Your task to perform on an android device: turn off location history Image 0: 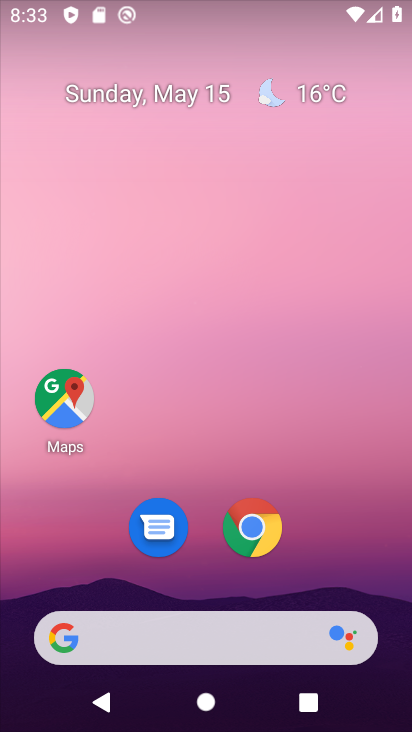
Step 0: click (61, 399)
Your task to perform on an android device: turn off location history Image 1: 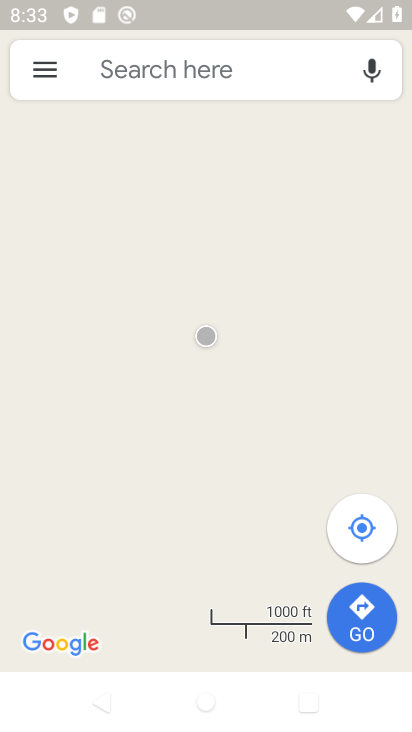
Step 1: click (37, 77)
Your task to perform on an android device: turn off location history Image 2: 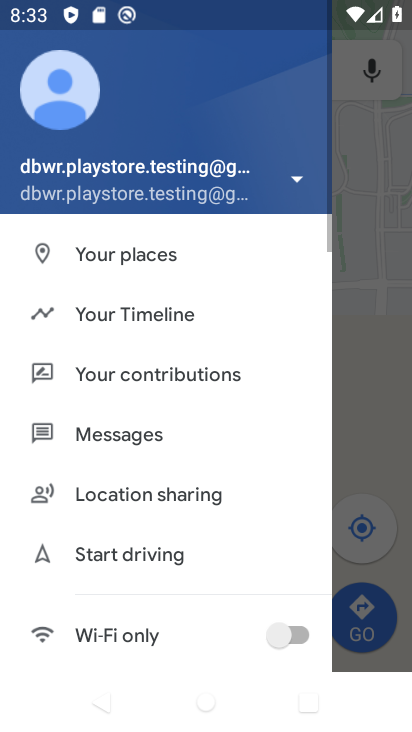
Step 2: drag from (199, 539) to (202, 601)
Your task to perform on an android device: turn off location history Image 3: 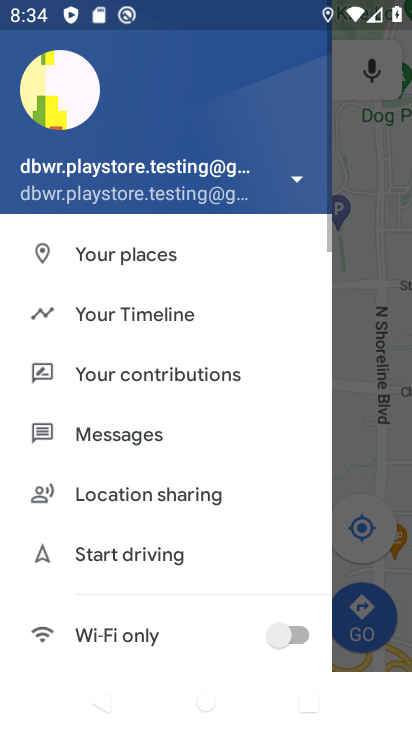
Step 3: click (129, 308)
Your task to perform on an android device: turn off location history Image 4: 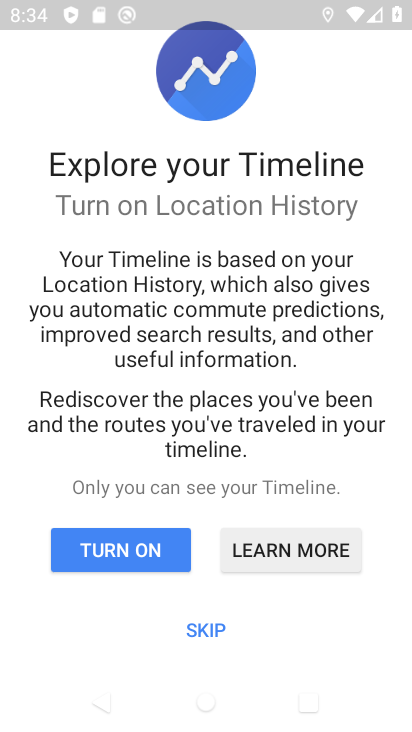
Step 4: click (204, 643)
Your task to perform on an android device: turn off location history Image 5: 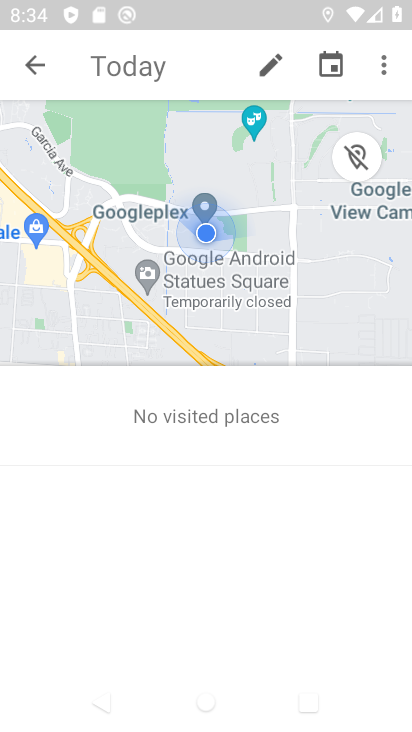
Step 5: click (388, 72)
Your task to perform on an android device: turn off location history Image 6: 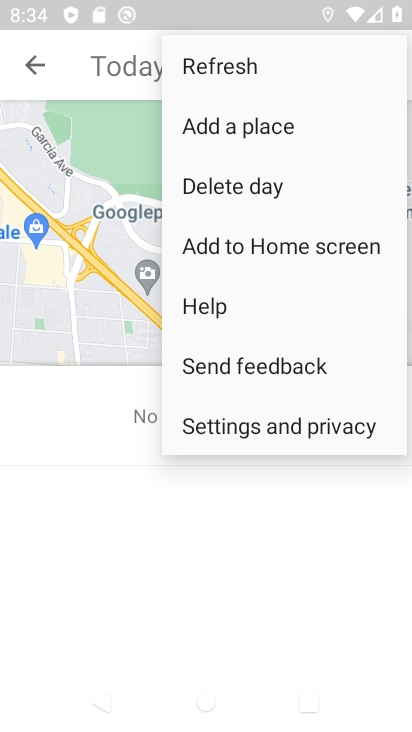
Step 6: click (270, 432)
Your task to perform on an android device: turn off location history Image 7: 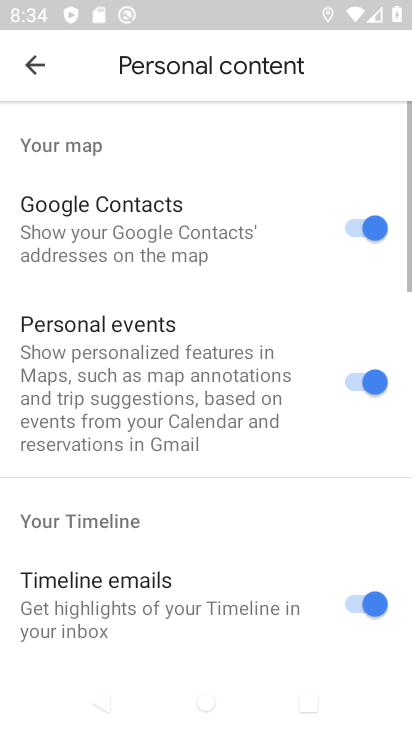
Step 7: drag from (184, 589) to (194, 47)
Your task to perform on an android device: turn off location history Image 8: 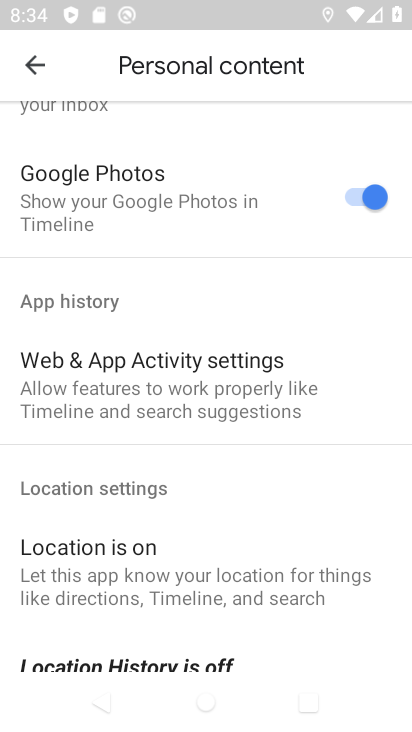
Step 8: drag from (133, 442) to (155, 99)
Your task to perform on an android device: turn off location history Image 9: 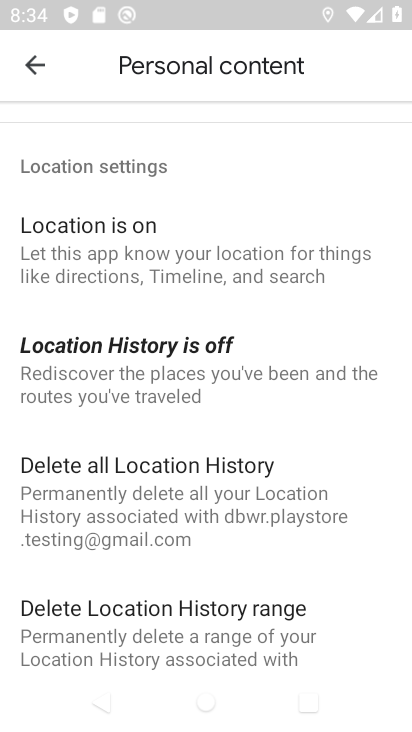
Step 9: click (101, 376)
Your task to perform on an android device: turn off location history Image 10: 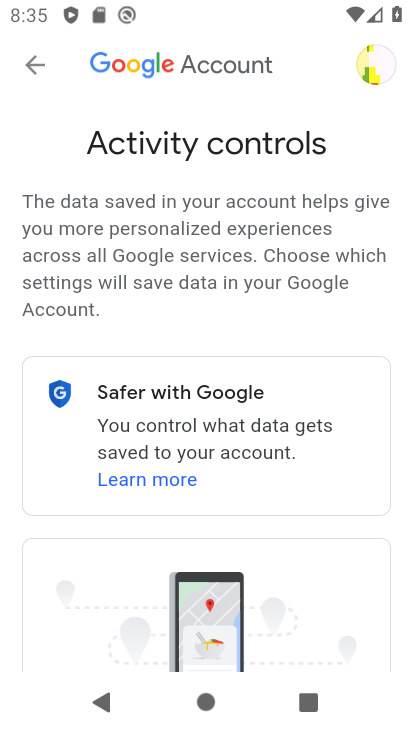
Step 10: drag from (261, 566) to (279, 109)
Your task to perform on an android device: turn off location history Image 11: 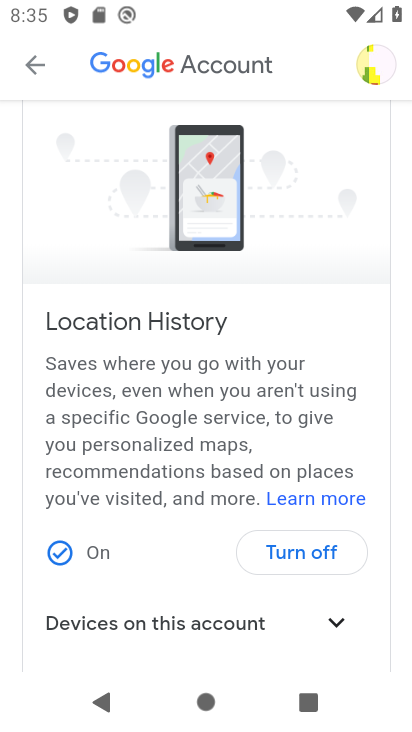
Step 11: click (307, 553)
Your task to perform on an android device: turn off location history Image 12: 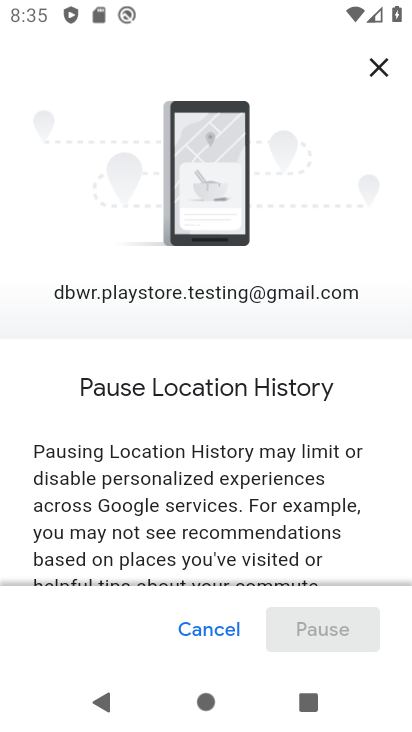
Step 12: drag from (207, 556) to (188, 79)
Your task to perform on an android device: turn off location history Image 13: 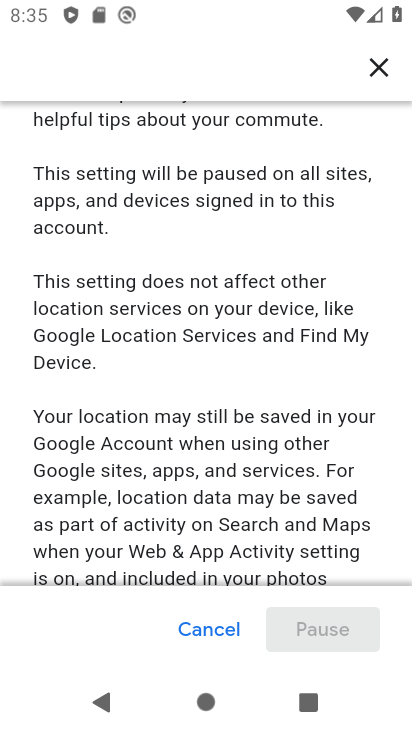
Step 13: drag from (146, 496) to (151, 28)
Your task to perform on an android device: turn off location history Image 14: 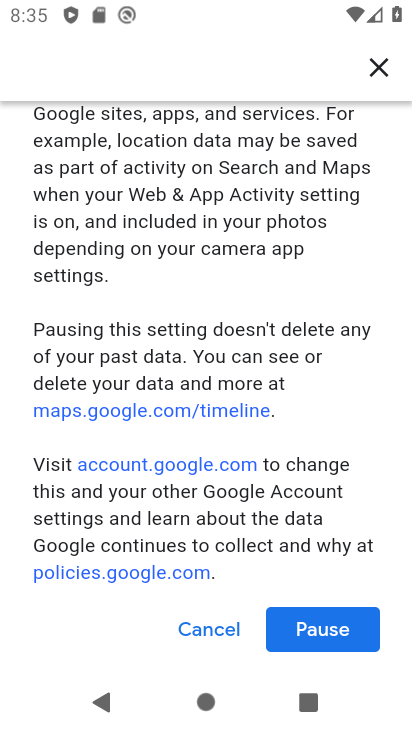
Step 14: drag from (191, 467) to (182, 138)
Your task to perform on an android device: turn off location history Image 15: 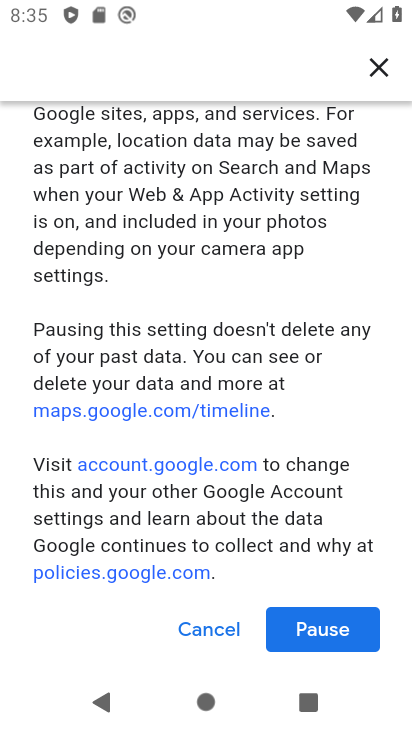
Step 15: click (327, 631)
Your task to perform on an android device: turn off location history Image 16: 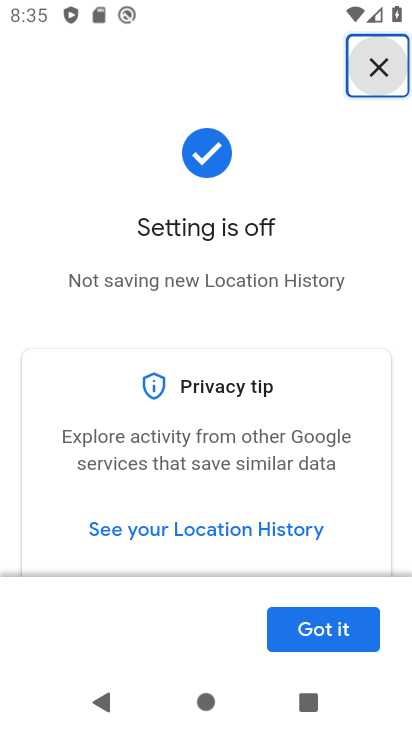
Step 16: click (327, 631)
Your task to perform on an android device: turn off location history Image 17: 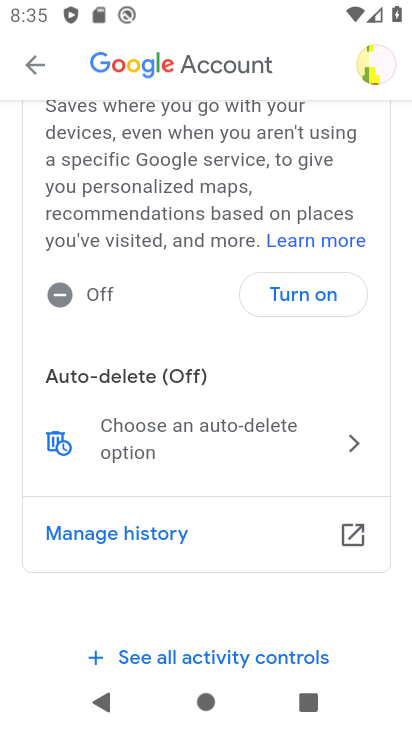
Step 17: task complete